Your task to perform on an android device: Open privacy settings Image 0: 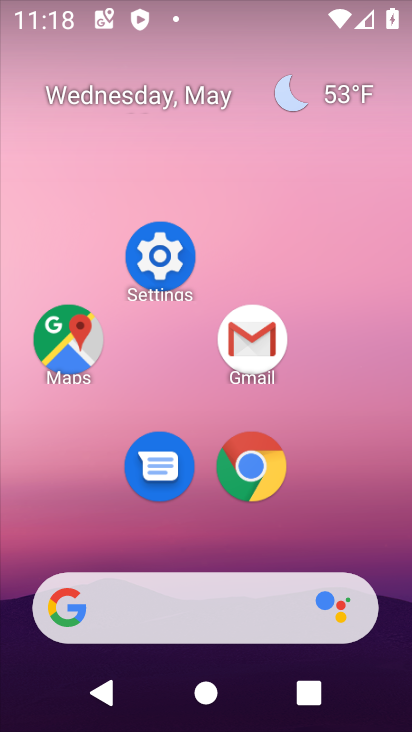
Step 0: click (238, 157)
Your task to perform on an android device: Open privacy settings Image 1: 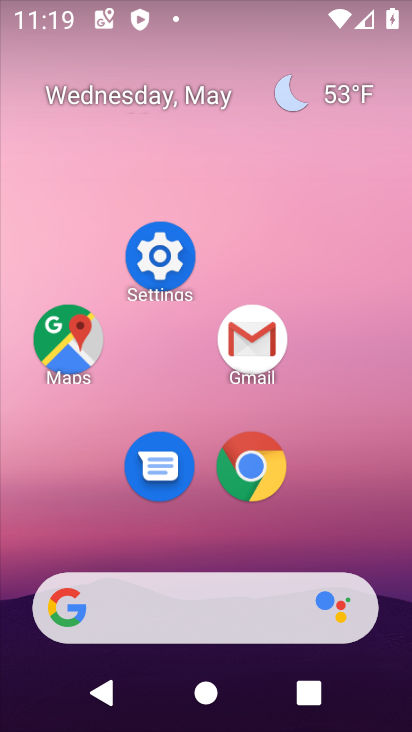
Step 1: drag from (210, 510) to (252, 124)
Your task to perform on an android device: Open privacy settings Image 2: 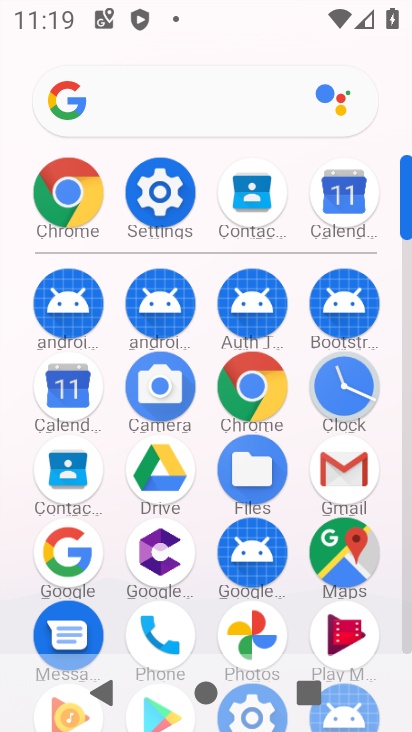
Step 2: drag from (204, 639) to (239, 309)
Your task to perform on an android device: Open privacy settings Image 3: 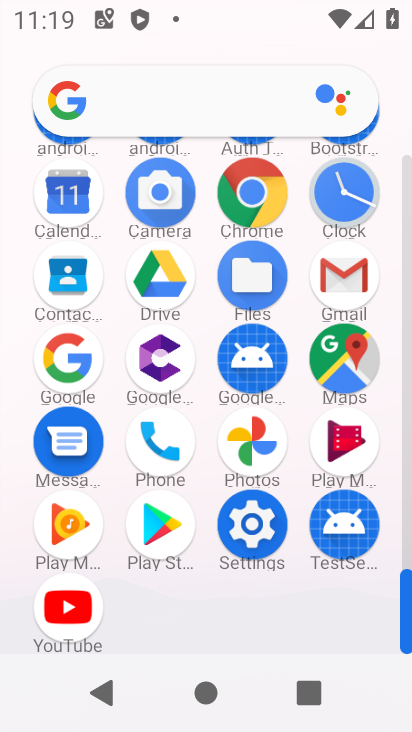
Step 3: click (246, 536)
Your task to perform on an android device: Open privacy settings Image 4: 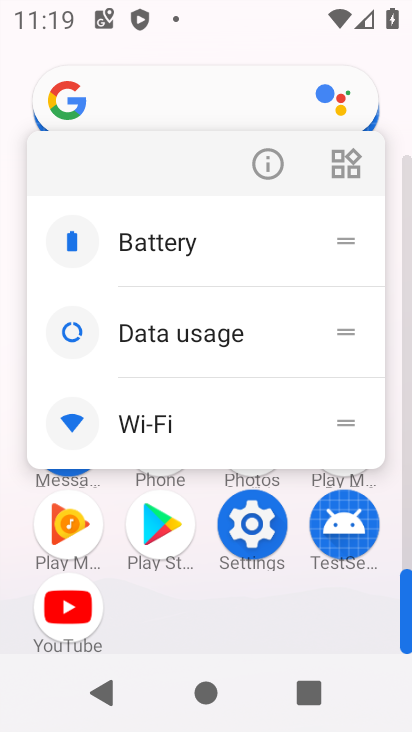
Step 4: click (266, 159)
Your task to perform on an android device: Open privacy settings Image 5: 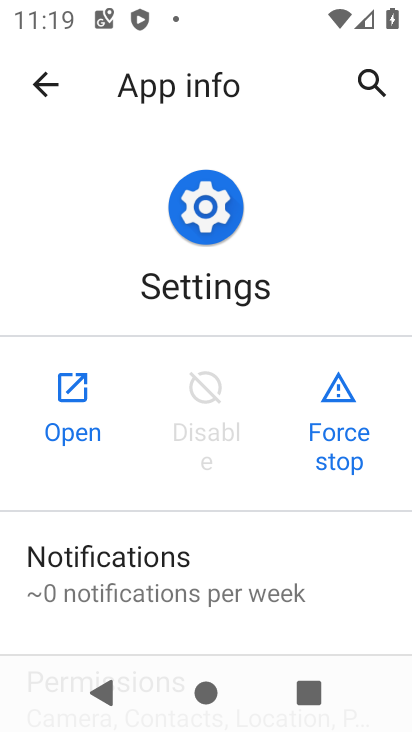
Step 5: click (91, 414)
Your task to perform on an android device: Open privacy settings Image 6: 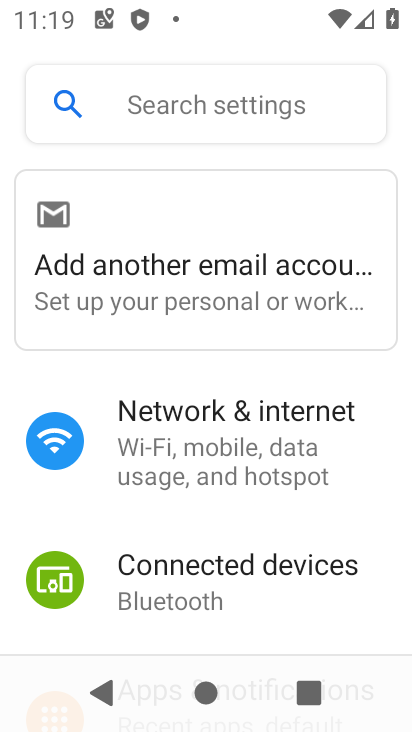
Step 6: drag from (243, 611) to (338, 2)
Your task to perform on an android device: Open privacy settings Image 7: 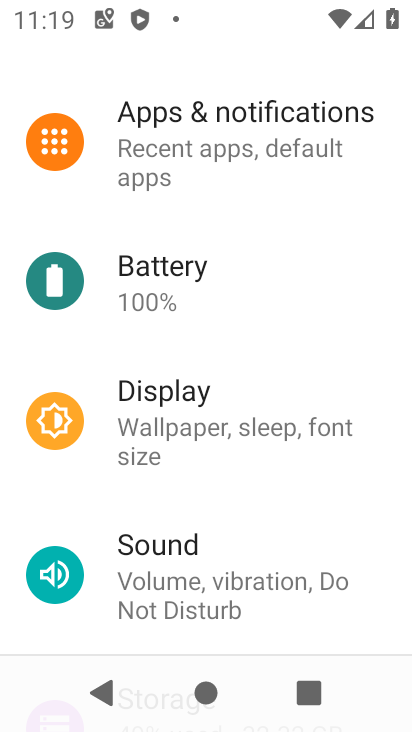
Step 7: drag from (211, 586) to (242, 226)
Your task to perform on an android device: Open privacy settings Image 8: 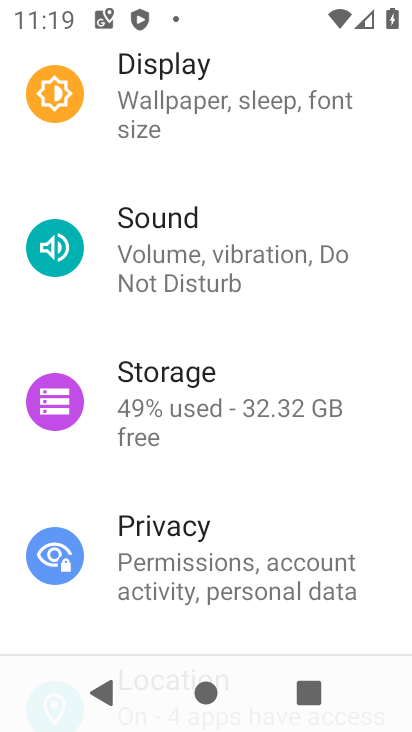
Step 8: click (197, 543)
Your task to perform on an android device: Open privacy settings Image 9: 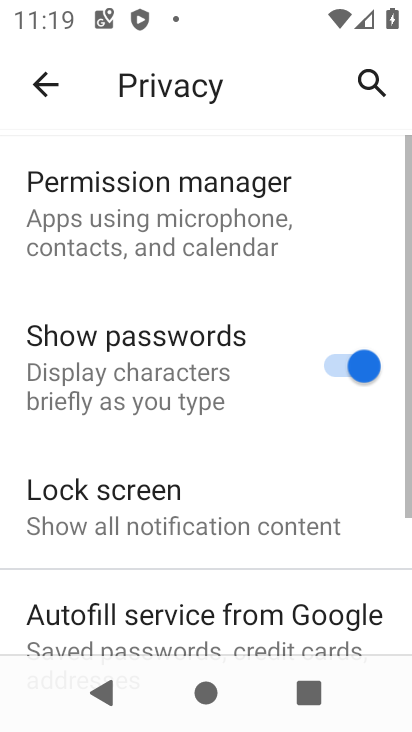
Step 9: task complete